Your task to perform on an android device: Open location settings Image 0: 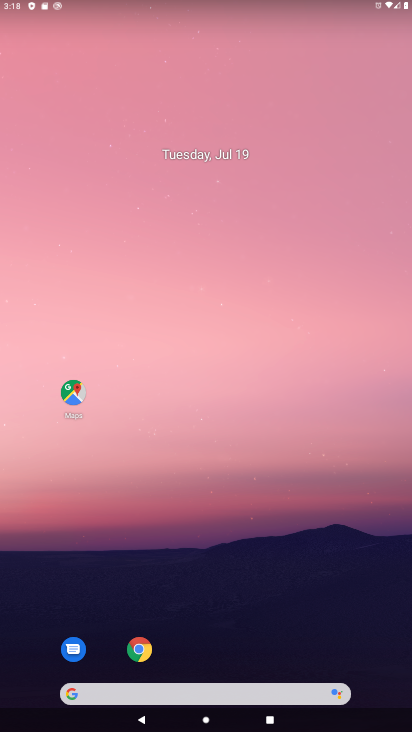
Step 0: drag from (210, 629) to (209, 136)
Your task to perform on an android device: Open location settings Image 1: 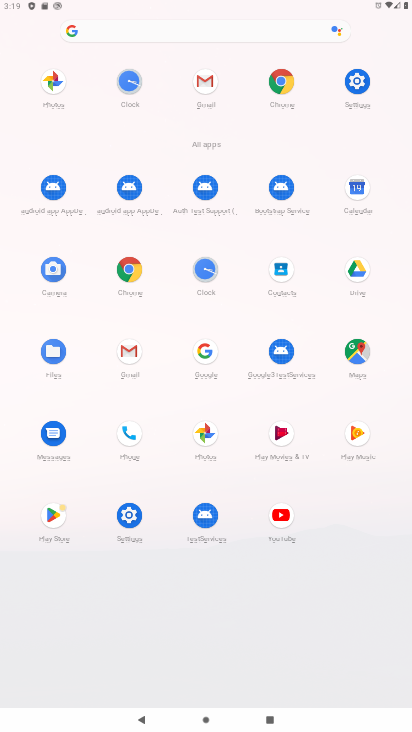
Step 1: click (363, 103)
Your task to perform on an android device: Open location settings Image 2: 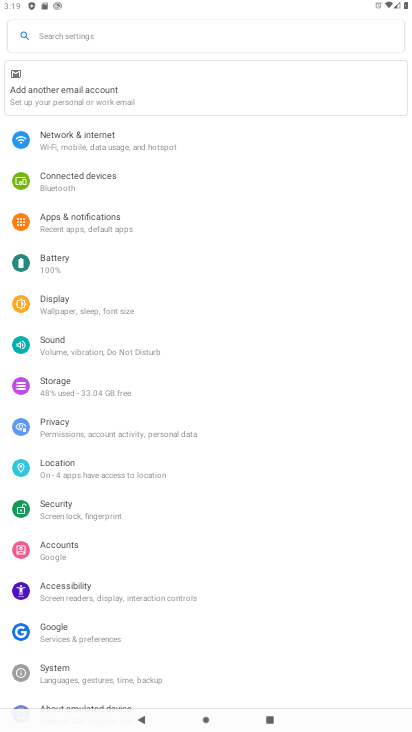
Step 2: click (135, 450)
Your task to perform on an android device: Open location settings Image 3: 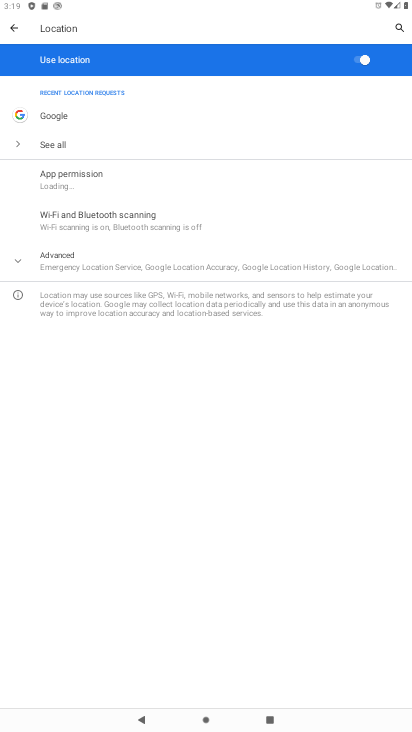
Step 3: task complete